Your task to perform on an android device: open app "Viber Messenger" (install if not already installed) Image 0: 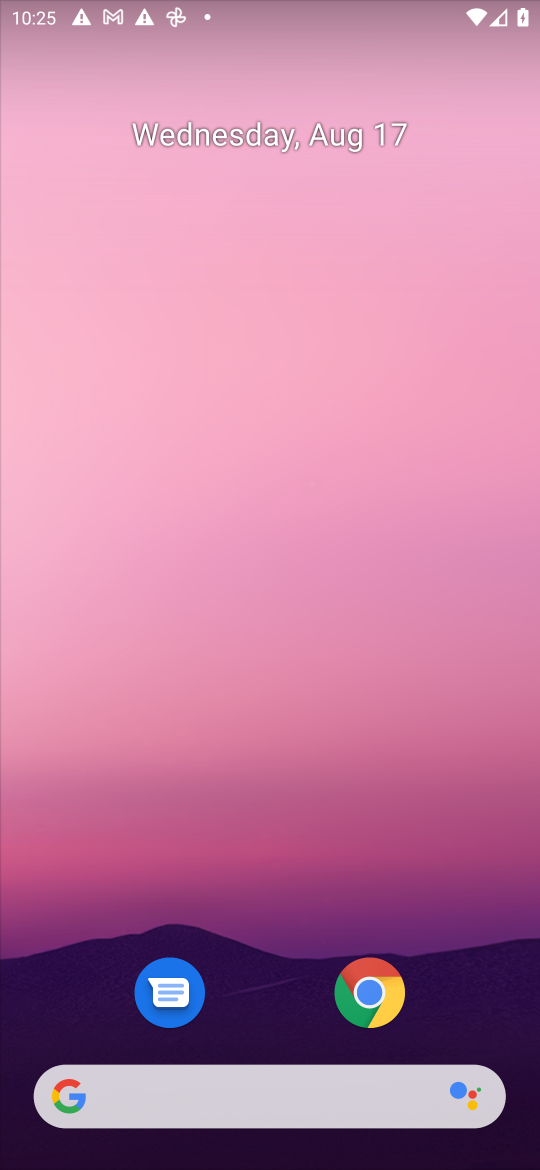
Step 0: drag from (490, 1006) to (328, 86)
Your task to perform on an android device: open app "Viber Messenger" (install if not already installed) Image 1: 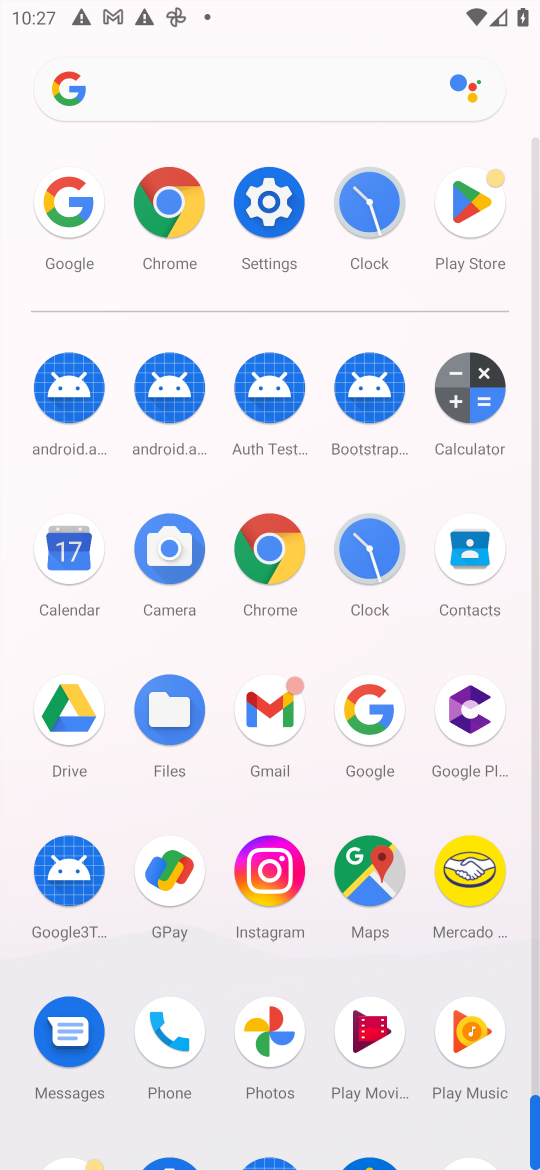
Step 1: click (482, 202)
Your task to perform on an android device: open app "Viber Messenger" (install if not already installed) Image 2: 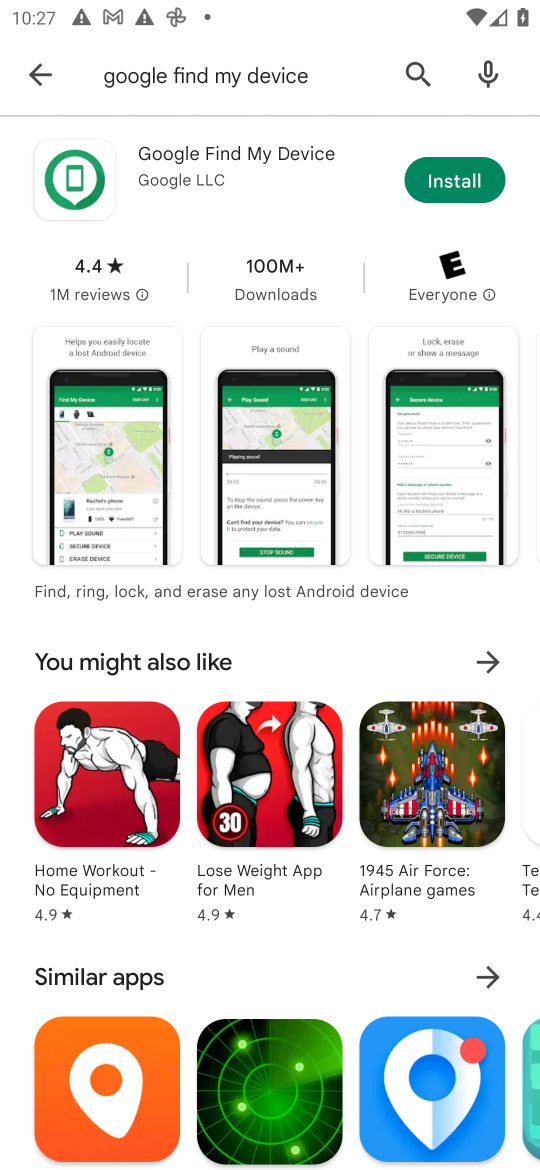
Step 2: press back button
Your task to perform on an android device: open app "Viber Messenger" (install if not already installed) Image 3: 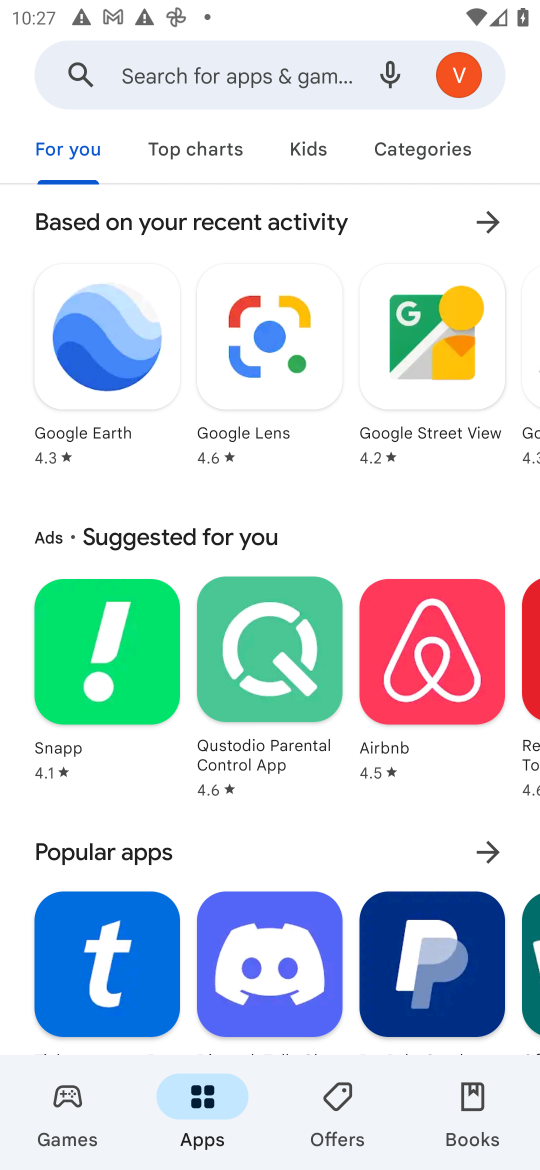
Step 3: click (203, 78)
Your task to perform on an android device: open app "Viber Messenger" (install if not already installed) Image 4: 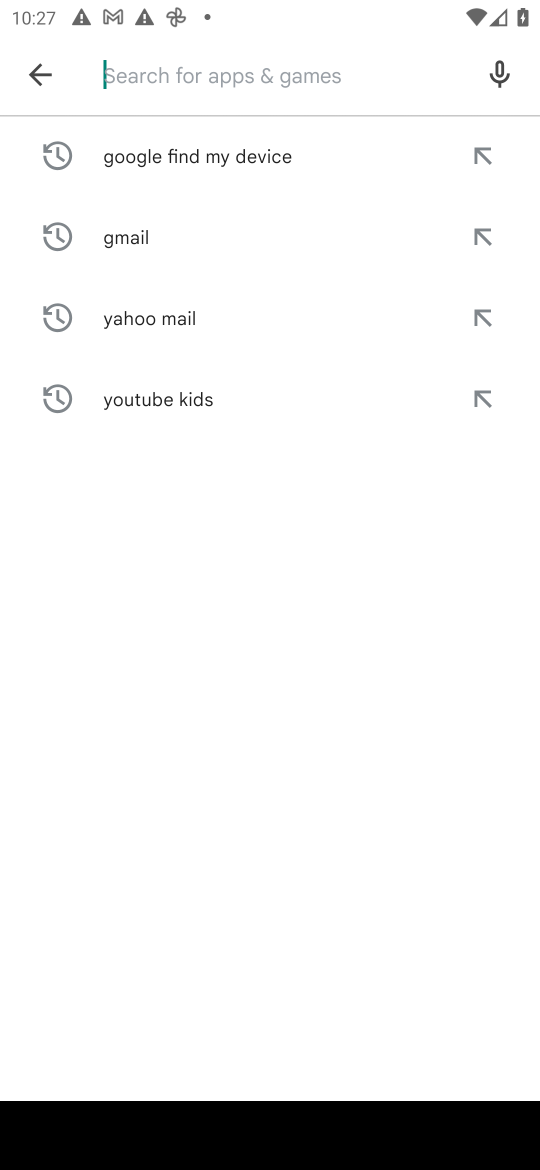
Step 4: type "Viber Messenger"
Your task to perform on an android device: open app "Viber Messenger" (install if not already installed) Image 5: 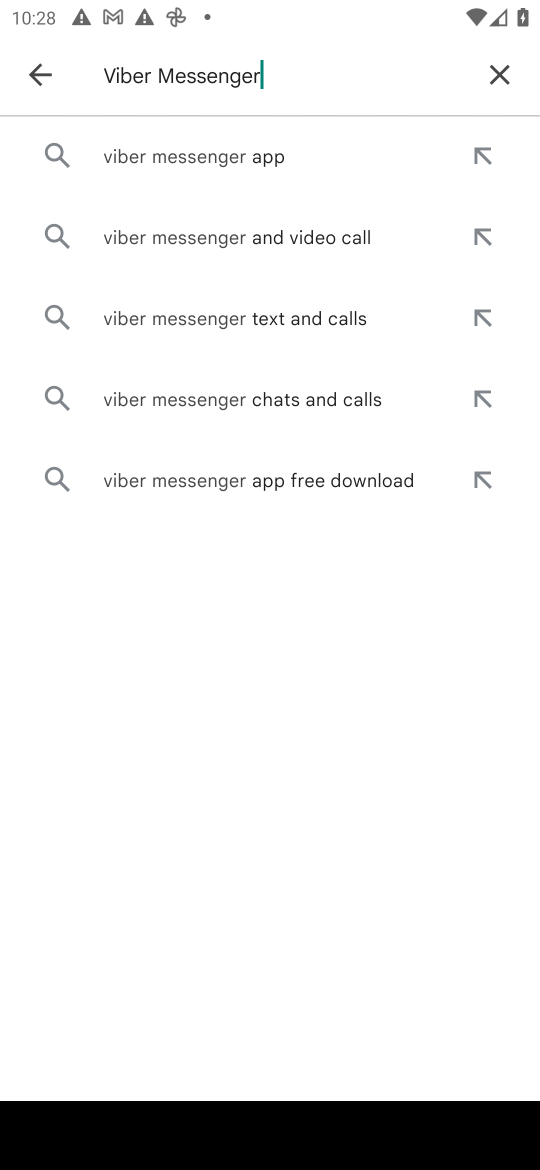
Step 5: click (178, 153)
Your task to perform on an android device: open app "Viber Messenger" (install if not already installed) Image 6: 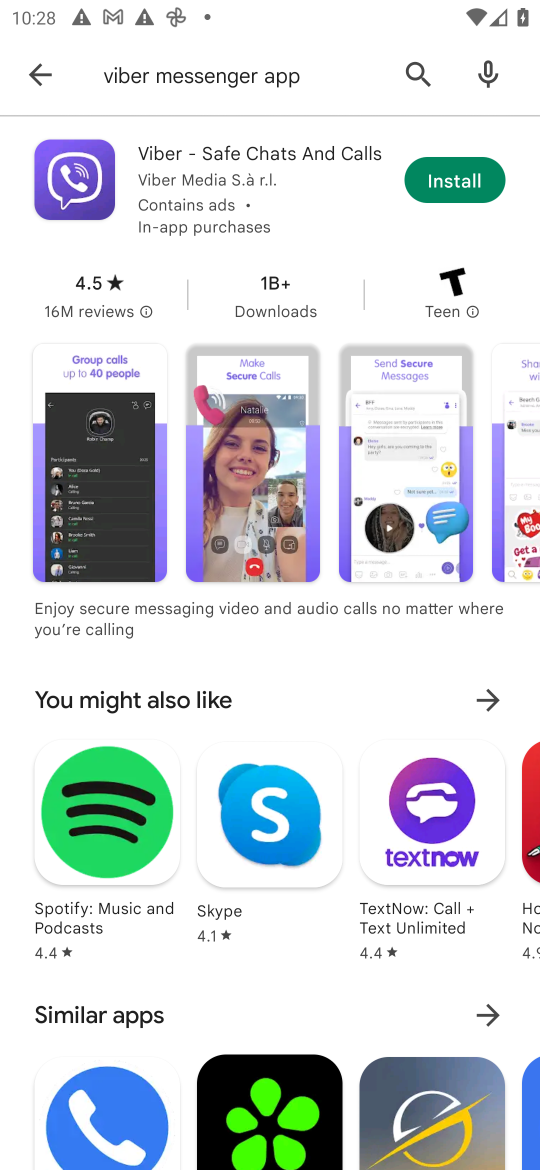
Step 6: task complete